Your task to perform on an android device: See recent photos Image 0: 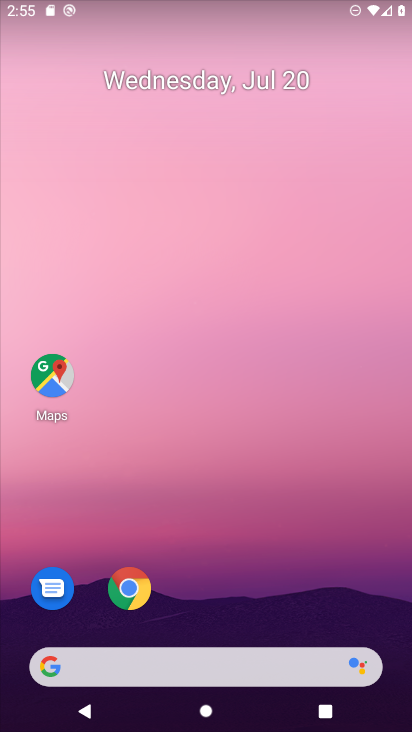
Step 0: drag from (194, 622) to (196, 0)
Your task to perform on an android device: See recent photos Image 1: 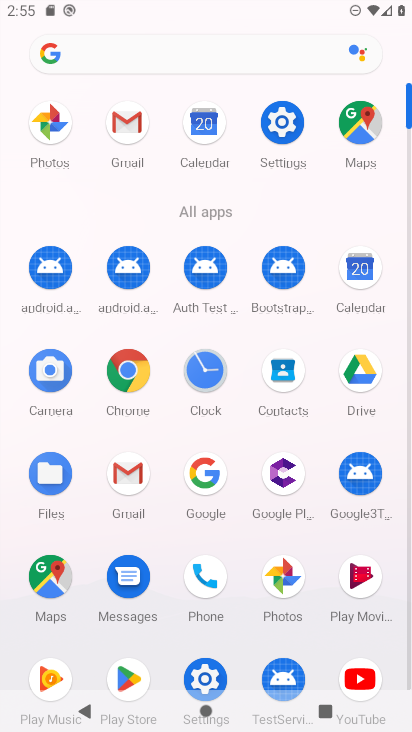
Step 1: click (55, 154)
Your task to perform on an android device: See recent photos Image 2: 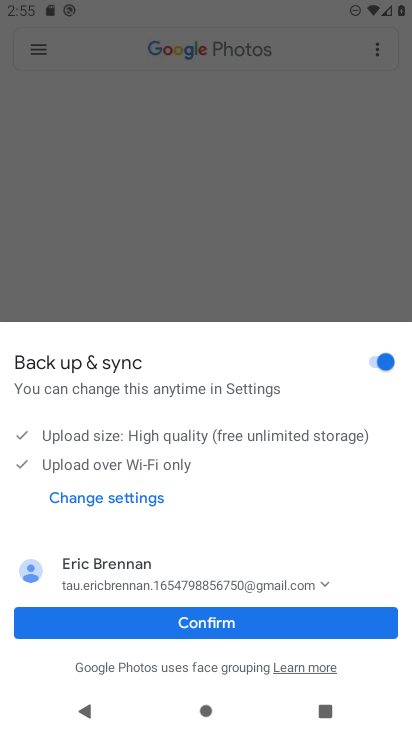
Step 2: click (195, 607)
Your task to perform on an android device: See recent photos Image 3: 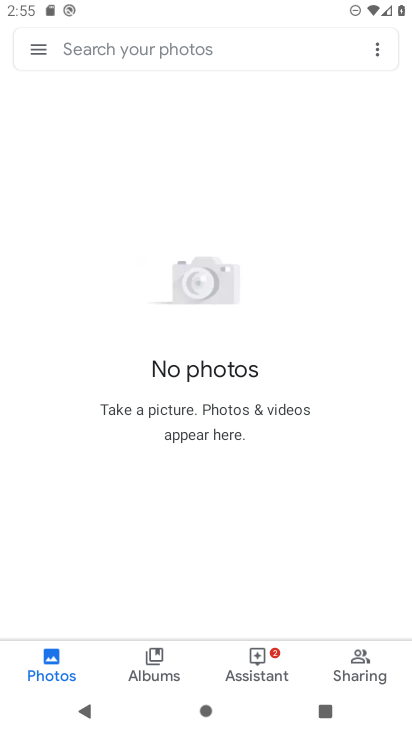
Step 3: task complete